Your task to perform on an android device: Set the phone to "Do not disturb". Image 0: 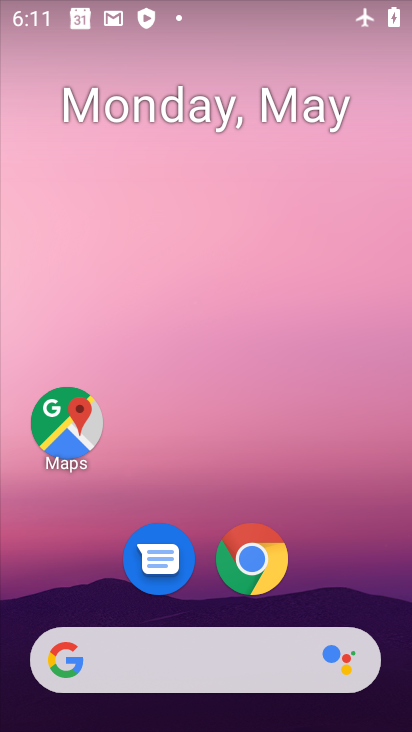
Step 0: drag from (338, 507) to (233, 4)
Your task to perform on an android device: Set the phone to "Do not disturb". Image 1: 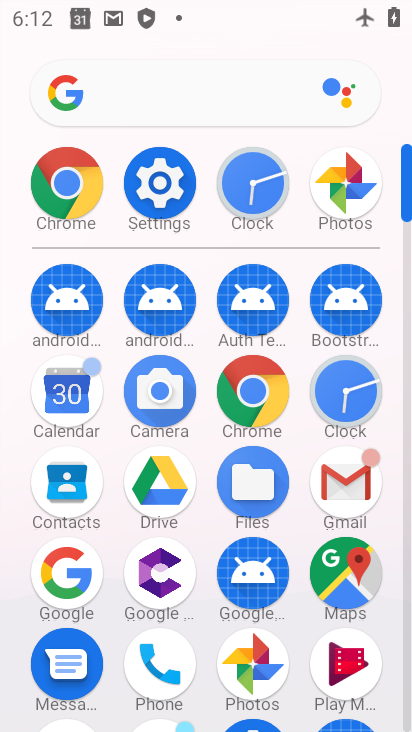
Step 1: click (156, 178)
Your task to perform on an android device: Set the phone to "Do not disturb". Image 2: 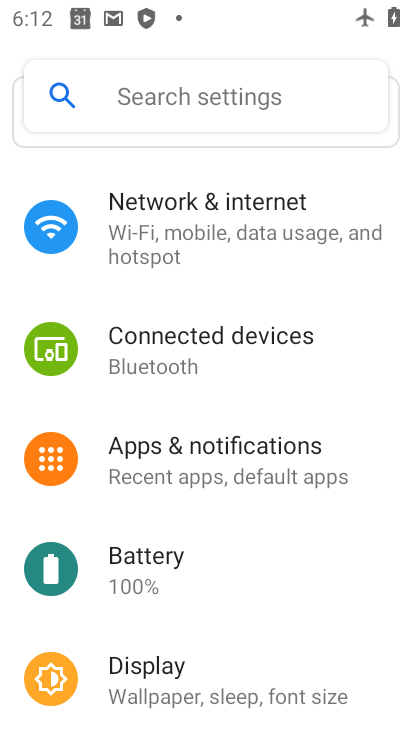
Step 2: drag from (258, 563) to (259, 150)
Your task to perform on an android device: Set the phone to "Do not disturb". Image 3: 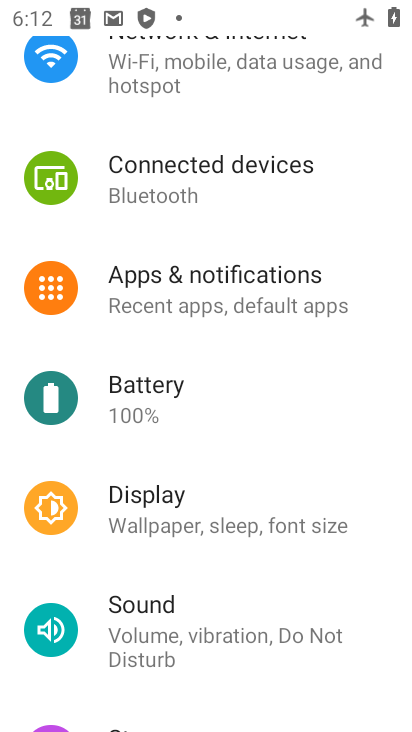
Step 3: click (127, 611)
Your task to perform on an android device: Set the phone to "Do not disturb". Image 4: 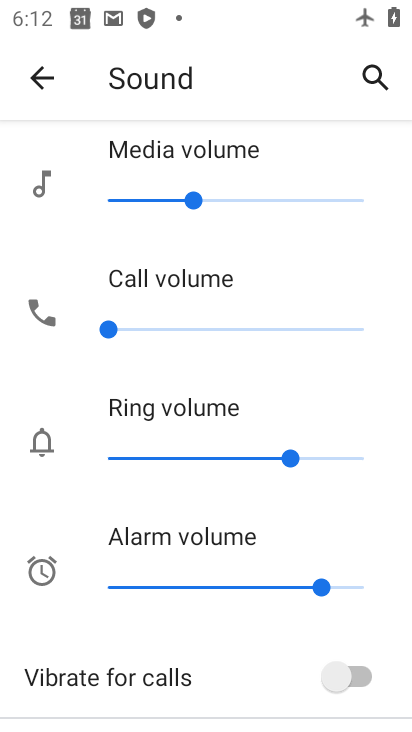
Step 4: drag from (217, 509) to (195, 126)
Your task to perform on an android device: Set the phone to "Do not disturb". Image 5: 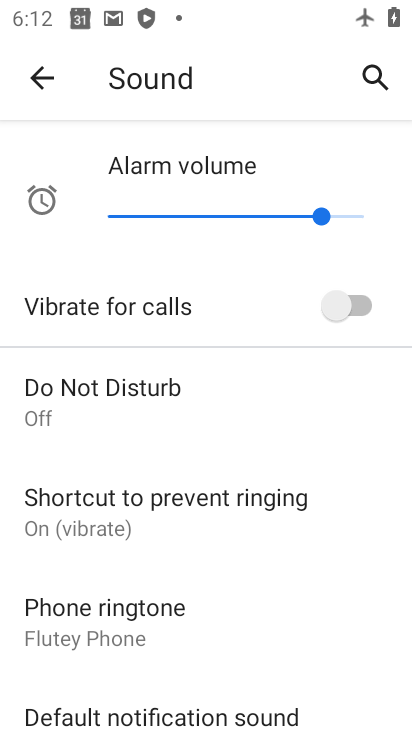
Step 5: click (114, 388)
Your task to perform on an android device: Set the phone to "Do not disturb". Image 6: 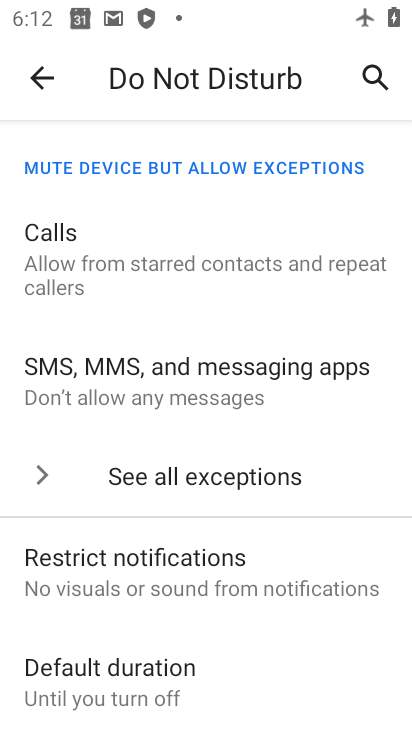
Step 6: drag from (231, 602) to (231, 292)
Your task to perform on an android device: Set the phone to "Do not disturb". Image 7: 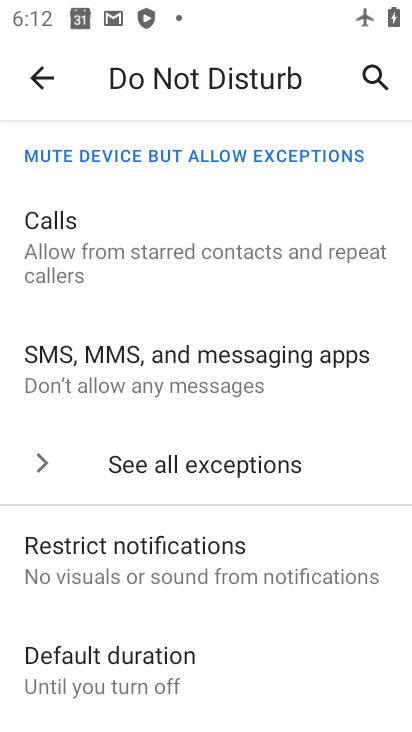
Step 7: drag from (259, 606) to (257, 172)
Your task to perform on an android device: Set the phone to "Do not disturb". Image 8: 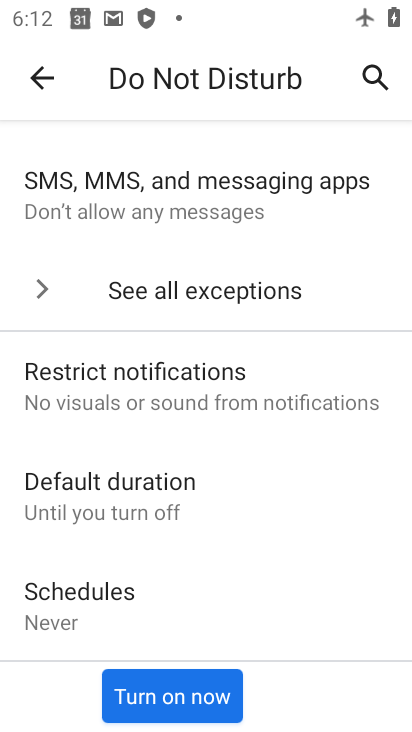
Step 8: click (207, 702)
Your task to perform on an android device: Set the phone to "Do not disturb". Image 9: 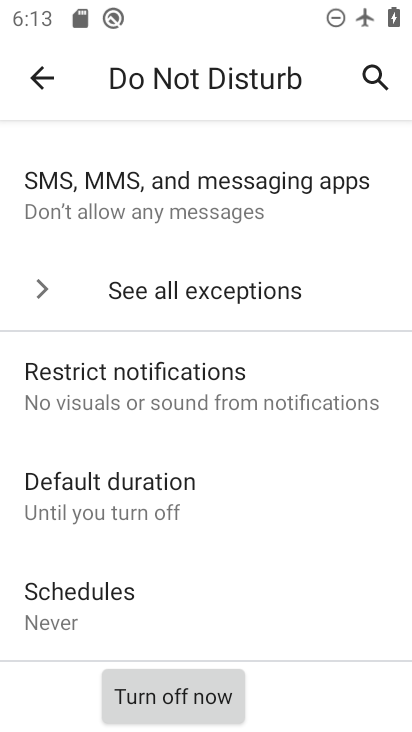
Step 9: task complete